Your task to perform on an android device: turn off javascript in the chrome app Image 0: 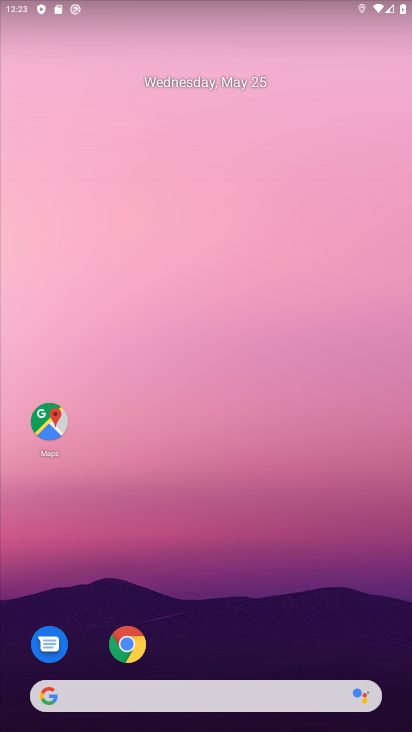
Step 0: click (132, 638)
Your task to perform on an android device: turn off javascript in the chrome app Image 1: 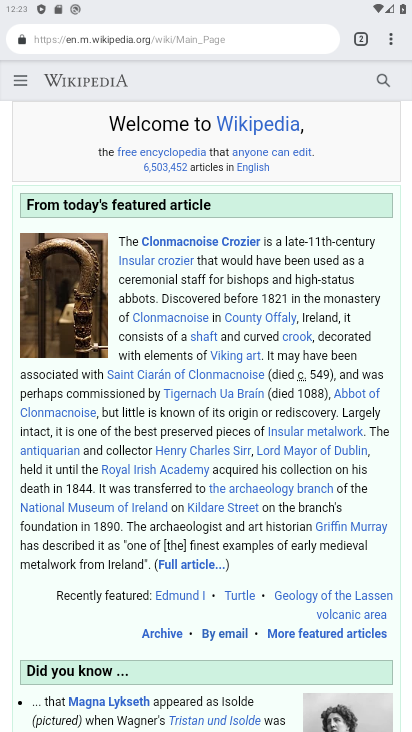
Step 1: click (390, 42)
Your task to perform on an android device: turn off javascript in the chrome app Image 2: 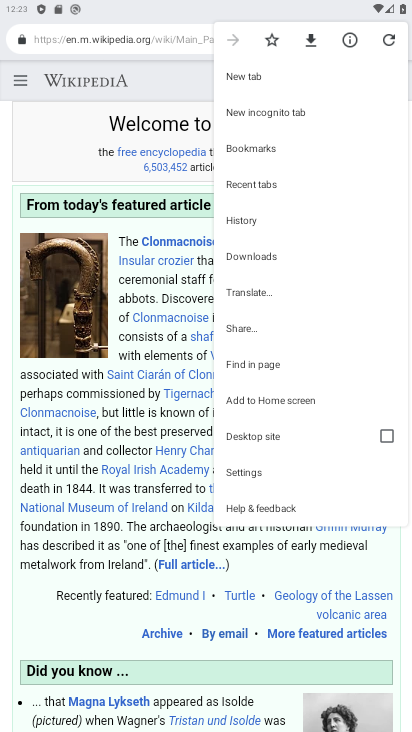
Step 2: click (256, 472)
Your task to perform on an android device: turn off javascript in the chrome app Image 3: 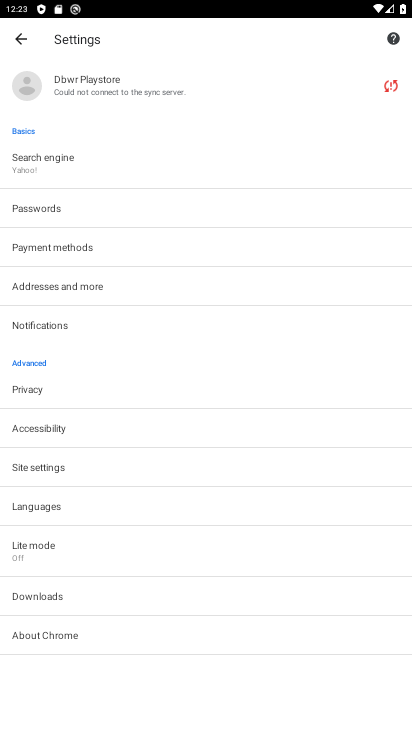
Step 3: click (34, 469)
Your task to perform on an android device: turn off javascript in the chrome app Image 4: 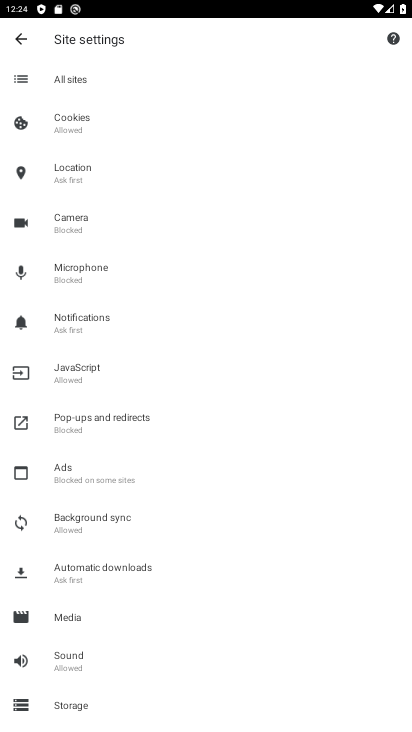
Step 4: click (80, 359)
Your task to perform on an android device: turn off javascript in the chrome app Image 5: 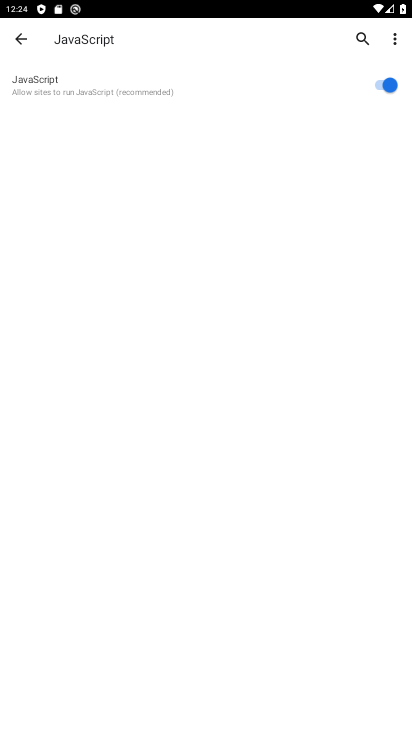
Step 5: click (396, 81)
Your task to perform on an android device: turn off javascript in the chrome app Image 6: 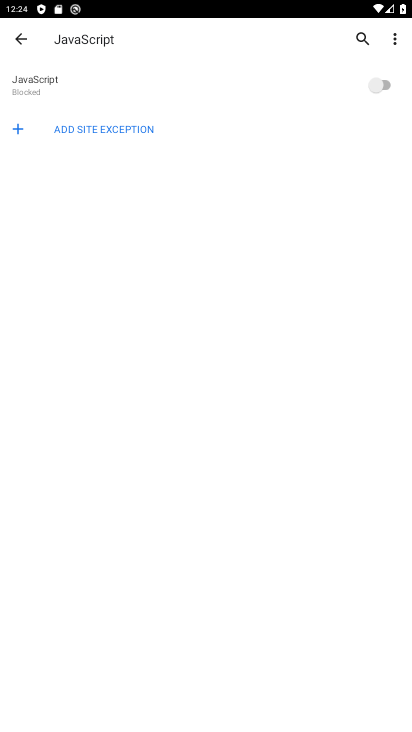
Step 6: click (396, 81)
Your task to perform on an android device: turn off javascript in the chrome app Image 7: 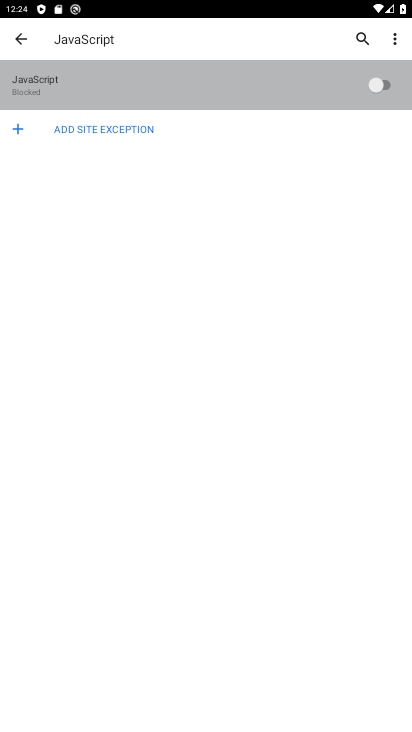
Step 7: task complete